Your task to perform on an android device: Go to Maps Image 0: 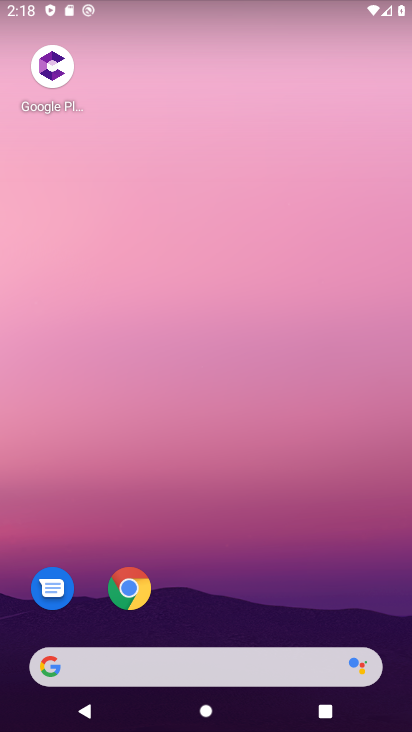
Step 0: drag from (269, 570) to (162, 69)
Your task to perform on an android device: Go to Maps Image 1: 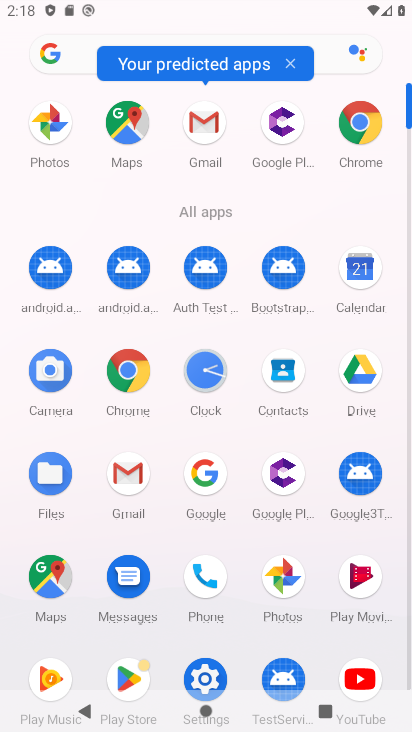
Step 1: click (124, 128)
Your task to perform on an android device: Go to Maps Image 2: 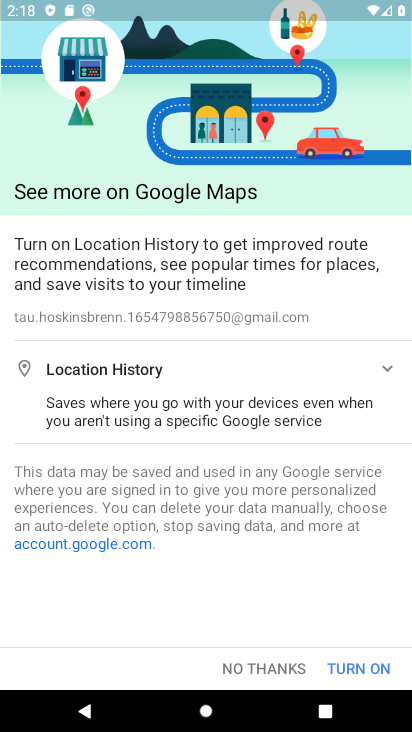
Step 2: click (363, 667)
Your task to perform on an android device: Go to Maps Image 3: 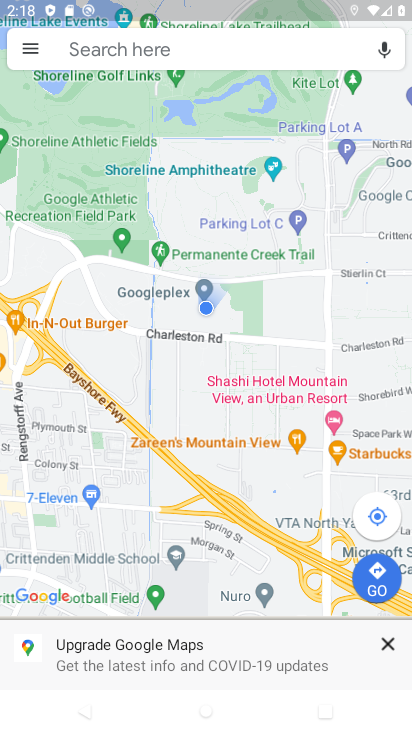
Step 3: task complete